Your task to perform on an android device: Do I have any events tomorrow? Image 0: 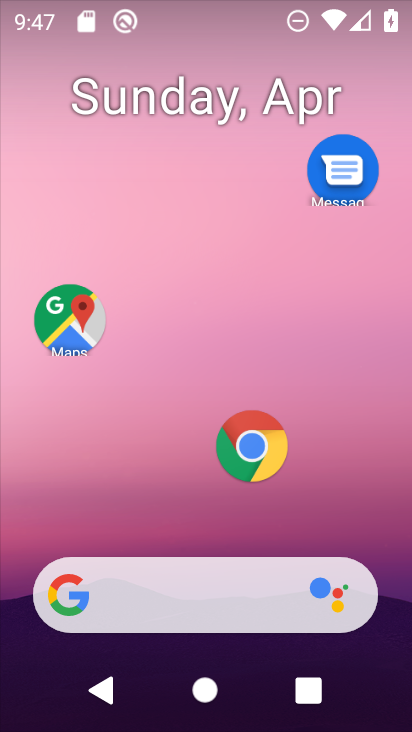
Step 0: click (210, 9)
Your task to perform on an android device: Do I have any events tomorrow? Image 1: 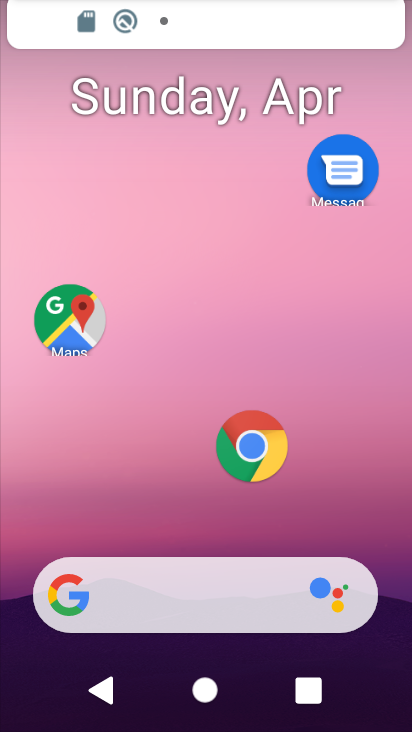
Step 1: drag from (201, 531) to (230, 79)
Your task to perform on an android device: Do I have any events tomorrow? Image 2: 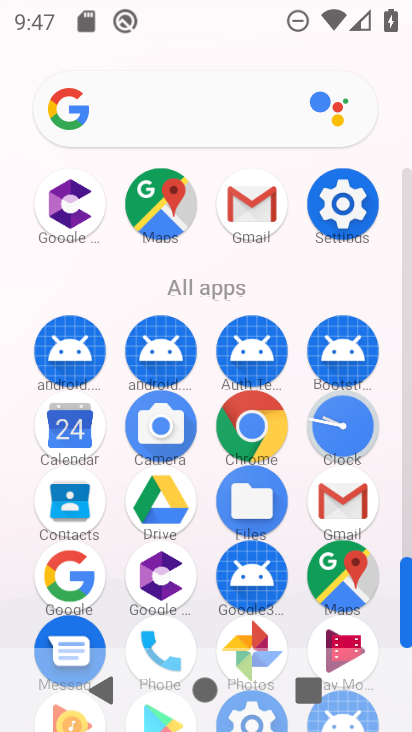
Step 2: click (82, 427)
Your task to perform on an android device: Do I have any events tomorrow? Image 3: 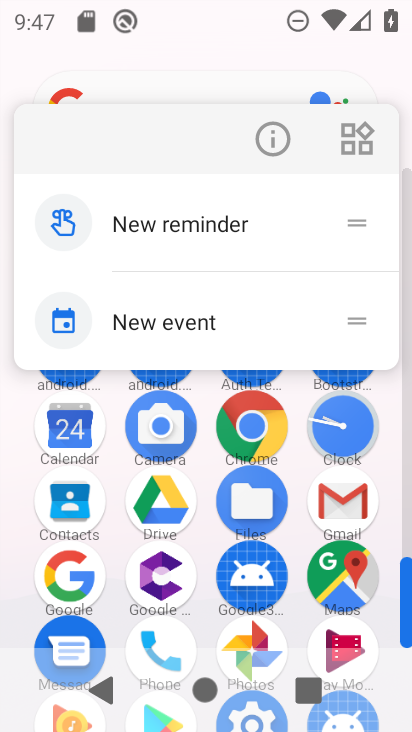
Step 3: click (278, 161)
Your task to perform on an android device: Do I have any events tomorrow? Image 4: 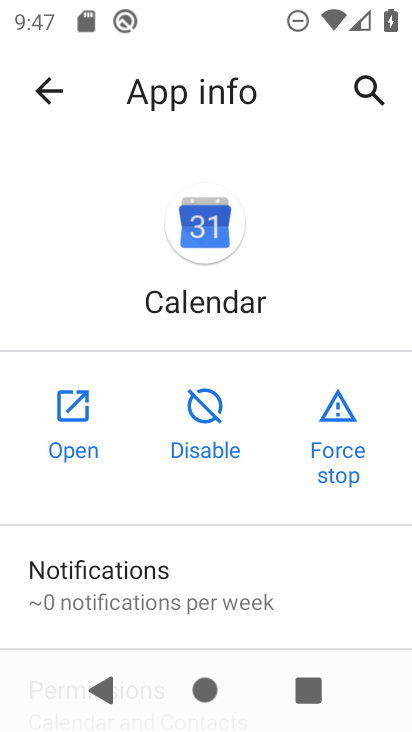
Step 4: click (65, 439)
Your task to perform on an android device: Do I have any events tomorrow? Image 5: 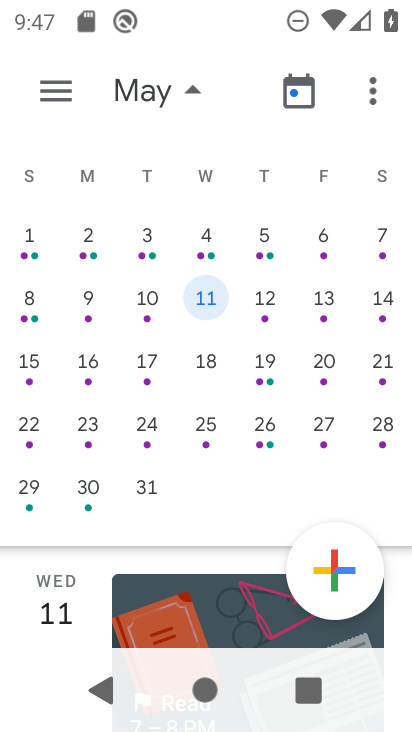
Step 5: drag from (75, 293) to (408, 284)
Your task to perform on an android device: Do I have any events tomorrow? Image 6: 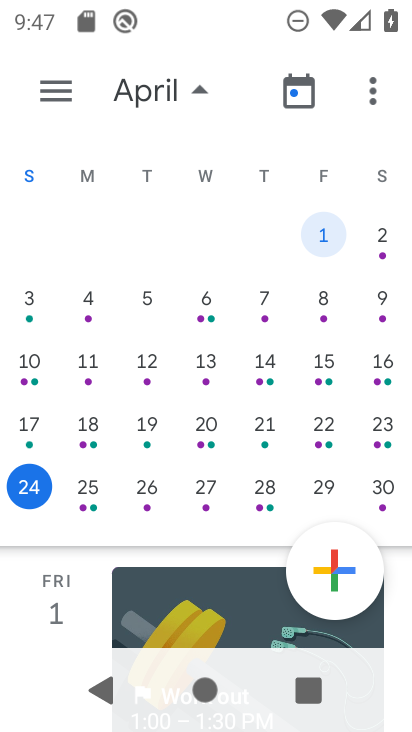
Step 6: click (83, 485)
Your task to perform on an android device: Do I have any events tomorrow? Image 7: 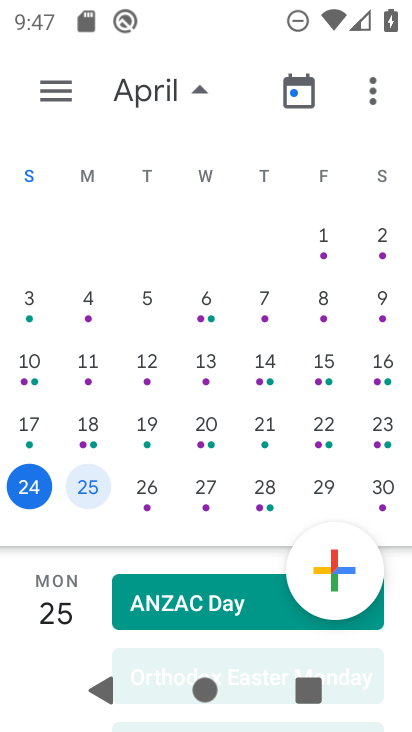
Step 7: task complete